Your task to perform on an android device: Show me popular videos on Youtube Image 0: 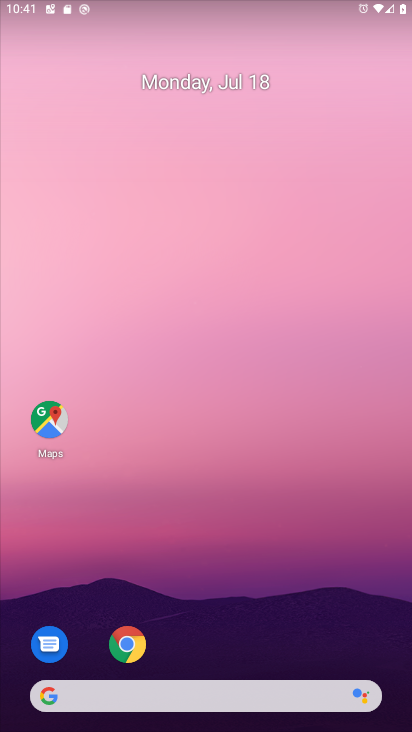
Step 0: press home button
Your task to perform on an android device: Show me popular videos on Youtube Image 1: 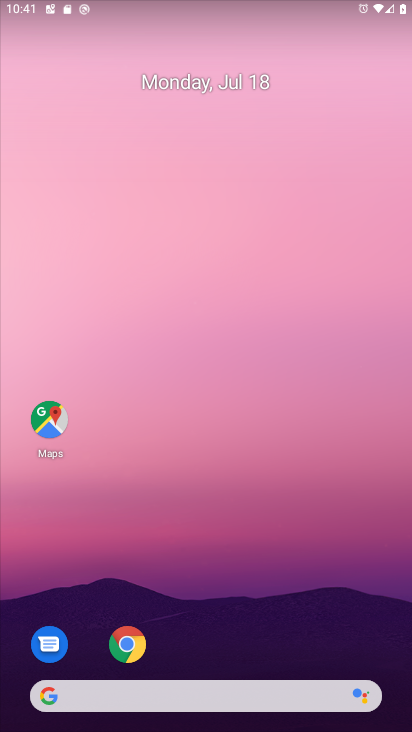
Step 1: drag from (223, 632) to (141, 85)
Your task to perform on an android device: Show me popular videos on Youtube Image 2: 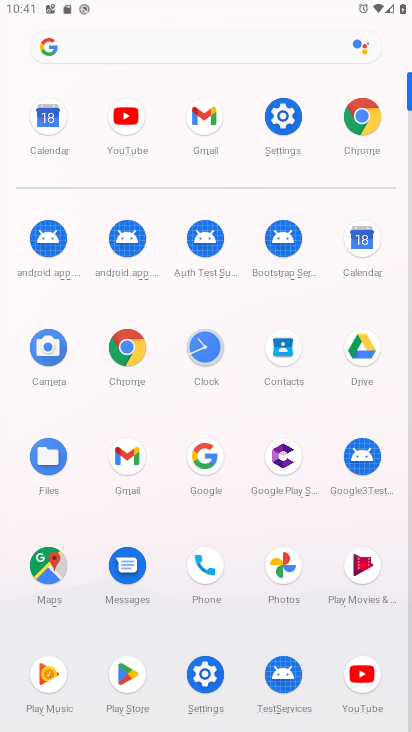
Step 2: click (136, 130)
Your task to perform on an android device: Show me popular videos on Youtube Image 3: 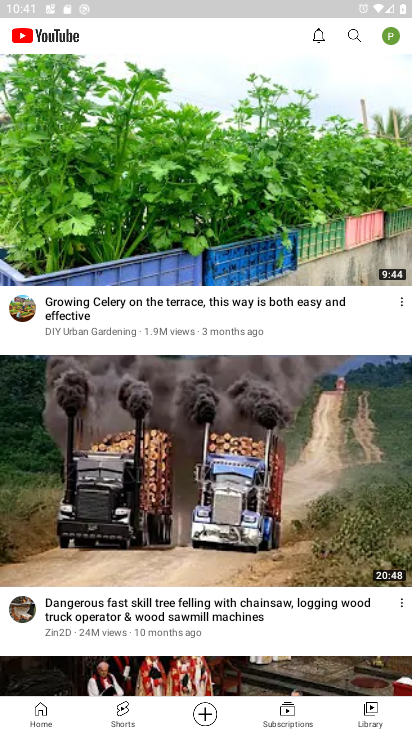
Step 3: task complete